Your task to perform on an android device: open app "Skype" (install if not already installed) Image 0: 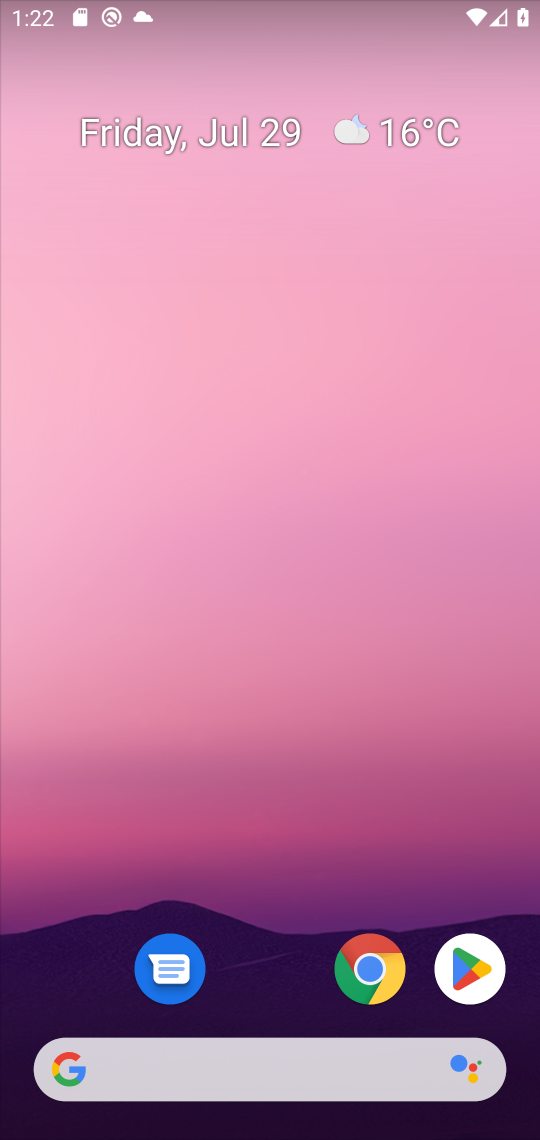
Step 0: click (452, 954)
Your task to perform on an android device: open app "Skype" (install if not already installed) Image 1: 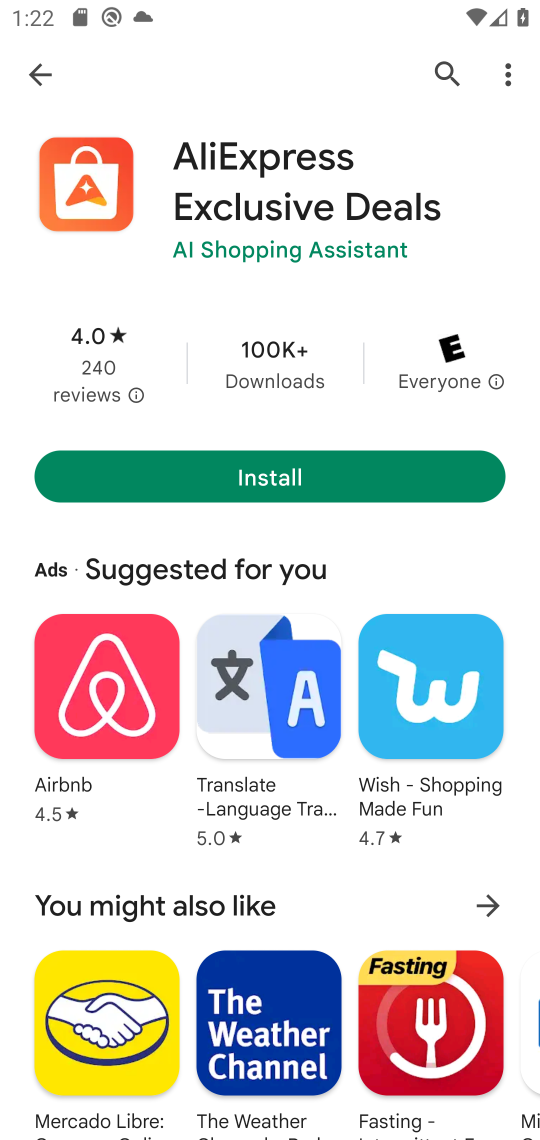
Step 1: type "skype"
Your task to perform on an android device: open app "Skype" (install if not already installed) Image 2: 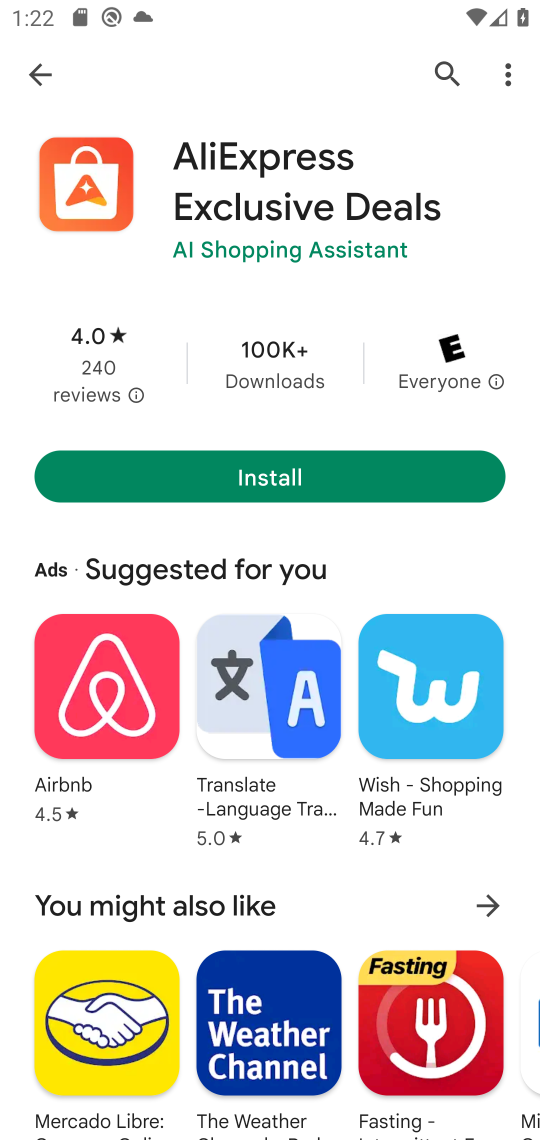
Step 2: click (433, 84)
Your task to perform on an android device: open app "Skype" (install if not already installed) Image 3: 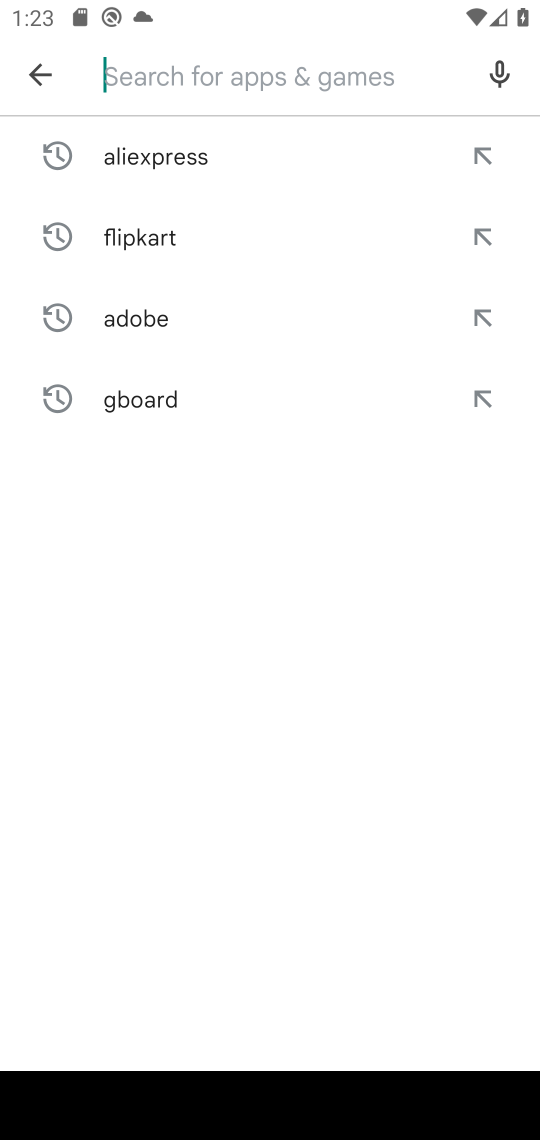
Step 3: type "skype"
Your task to perform on an android device: open app "Skype" (install if not already installed) Image 4: 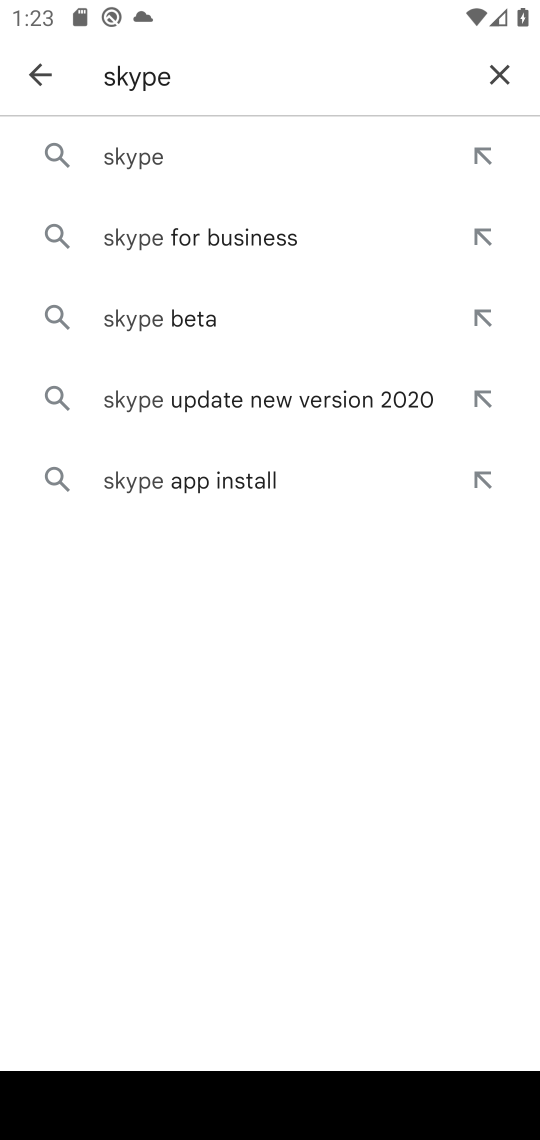
Step 4: click (169, 180)
Your task to perform on an android device: open app "Skype" (install if not already installed) Image 5: 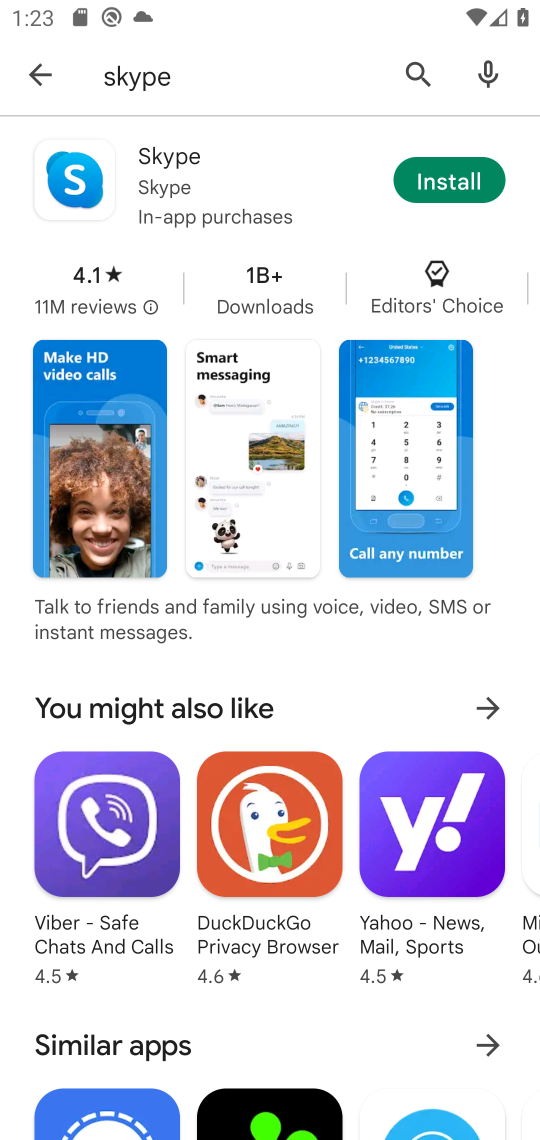
Step 5: click (405, 176)
Your task to perform on an android device: open app "Skype" (install if not already installed) Image 6: 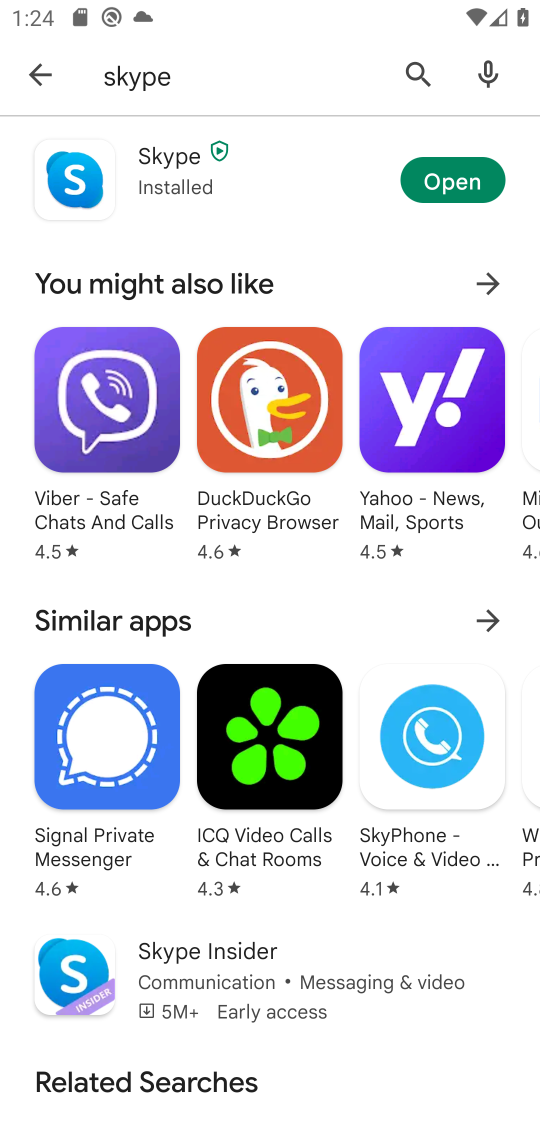
Step 6: click (457, 185)
Your task to perform on an android device: open app "Skype" (install if not already installed) Image 7: 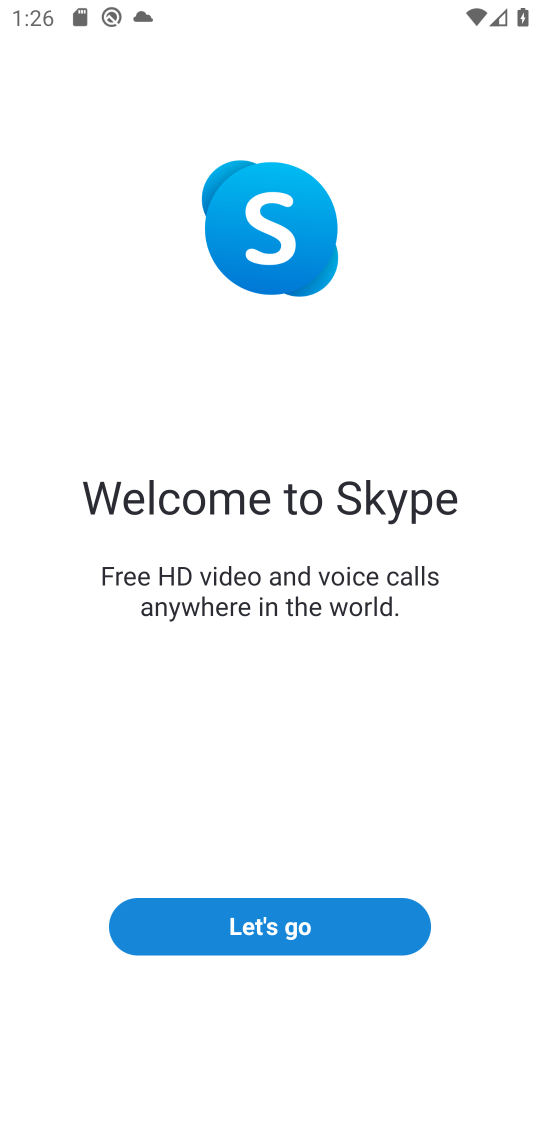
Step 7: task complete